Your task to perform on an android device: open a new tab in the chrome app Image 0: 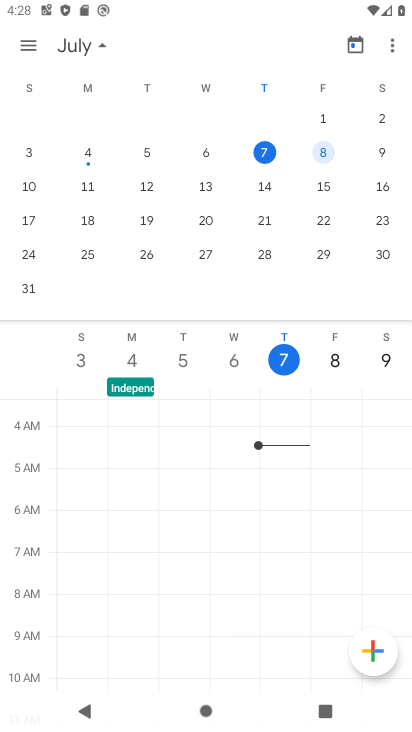
Step 0: press home button
Your task to perform on an android device: open a new tab in the chrome app Image 1: 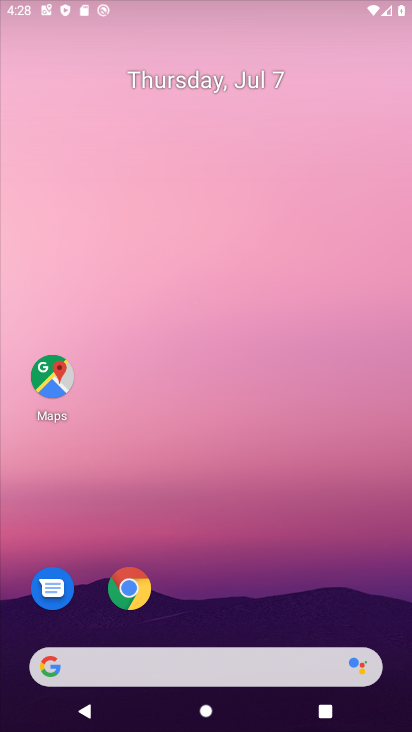
Step 1: drag from (282, 670) to (347, 73)
Your task to perform on an android device: open a new tab in the chrome app Image 2: 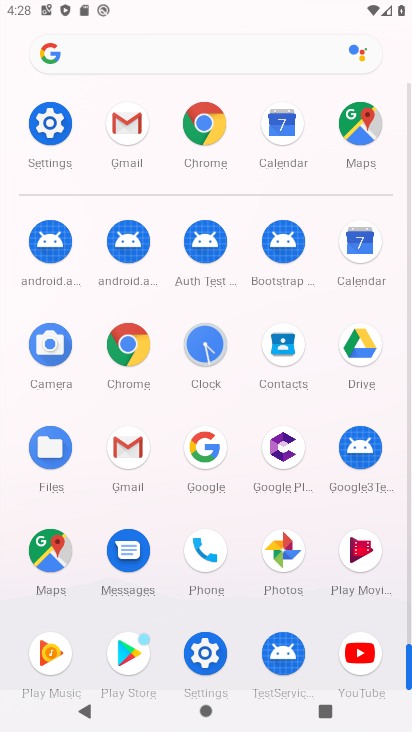
Step 2: click (125, 356)
Your task to perform on an android device: open a new tab in the chrome app Image 3: 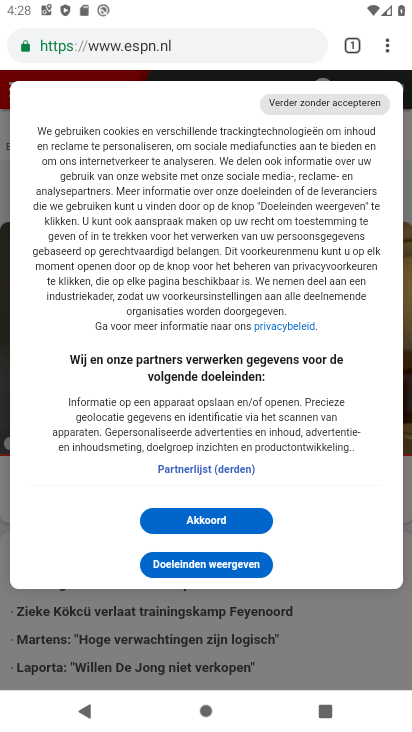
Step 3: click (382, 42)
Your task to perform on an android device: open a new tab in the chrome app Image 4: 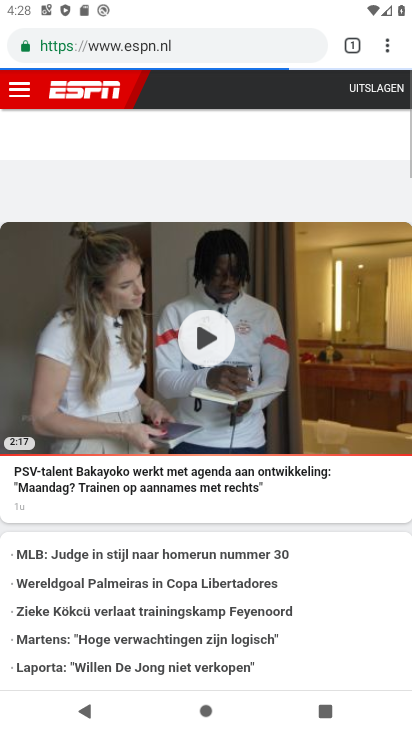
Step 4: task complete